Your task to perform on an android device: Open the web browser Image 0: 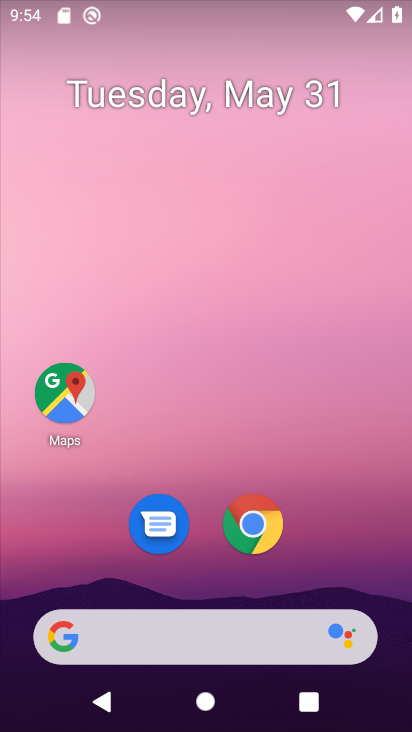
Step 0: click (186, 641)
Your task to perform on an android device: Open the web browser Image 1: 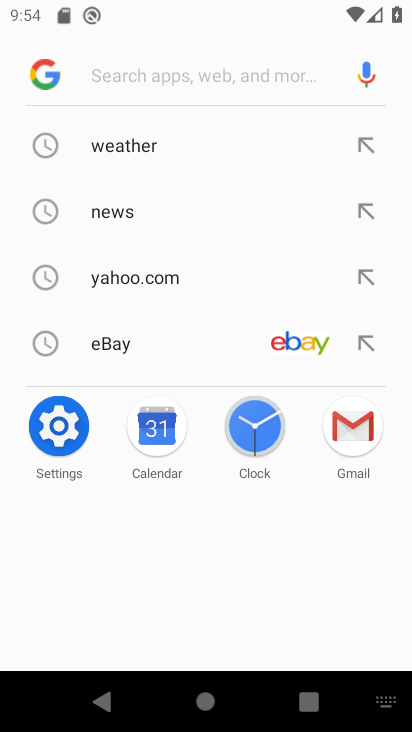
Step 1: task complete